Your task to perform on an android device: Who is the president of France? Image 0: 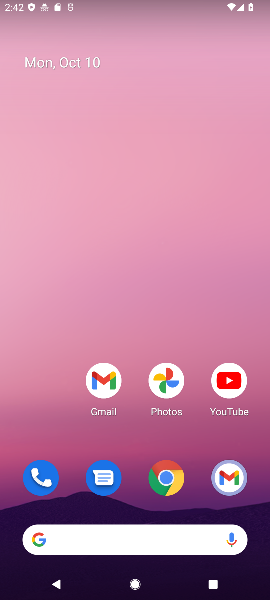
Step 0: click (168, 484)
Your task to perform on an android device: Who is the president of France? Image 1: 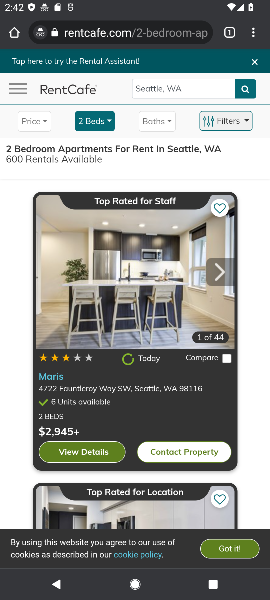
Step 1: click (147, 28)
Your task to perform on an android device: Who is the president of France? Image 2: 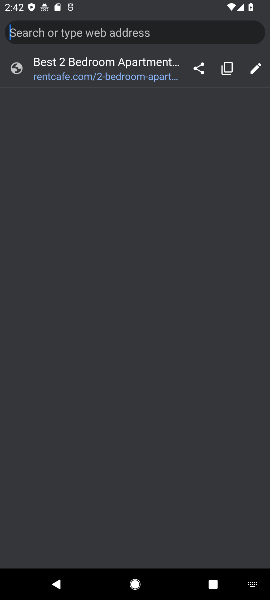
Step 2: type "Who is the president of France?"
Your task to perform on an android device: Who is the president of France? Image 3: 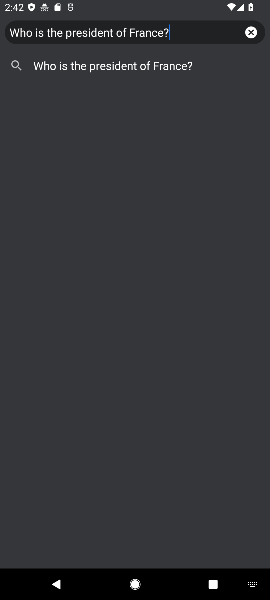
Step 3: click (97, 74)
Your task to perform on an android device: Who is the president of France? Image 4: 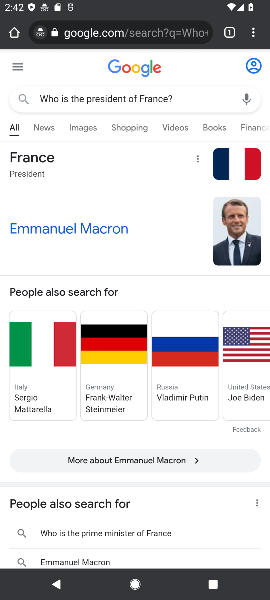
Step 4: task complete